Your task to perform on an android device: Open Maps and search for coffee Image 0: 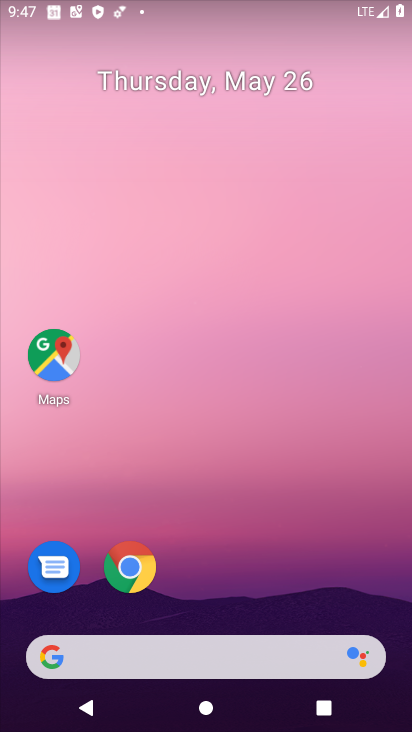
Step 0: drag from (161, 706) to (107, 0)
Your task to perform on an android device: Open Maps and search for coffee Image 1: 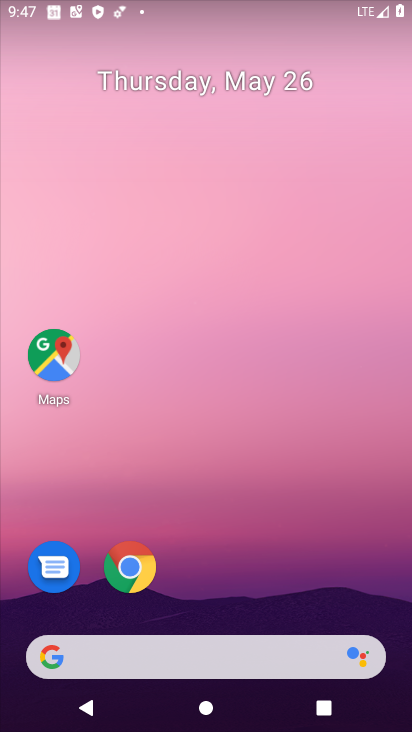
Step 1: drag from (155, 717) to (273, 10)
Your task to perform on an android device: Open Maps and search for coffee Image 2: 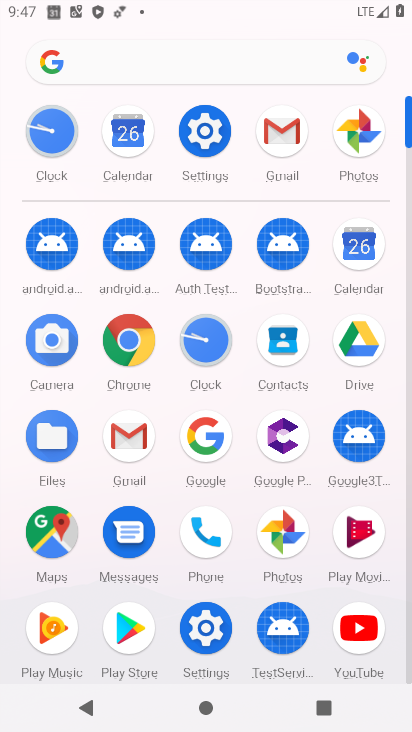
Step 2: click (17, 527)
Your task to perform on an android device: Open Maps and search for coffee Image 3: 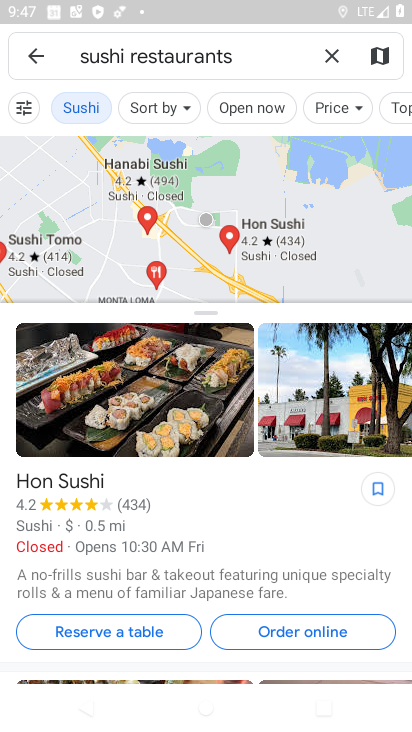
Step 3: click (325, 46)
Your task to perform on an android device: Open Maps and search for coffee Image 4: 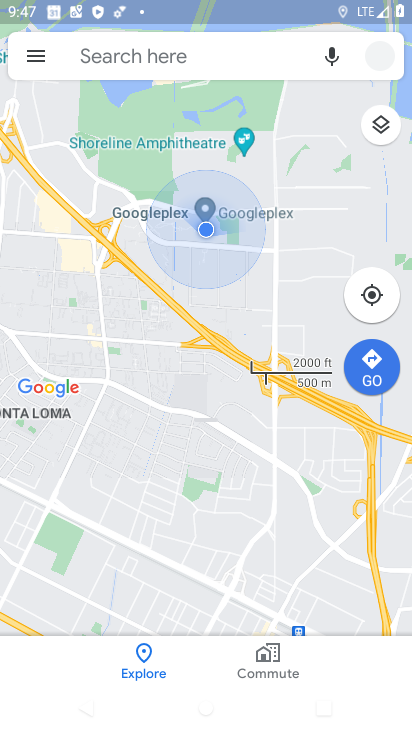
Step 4: click (219, 57)
Your task to perform on an android device: Open Maps and search for coffee Image 5: 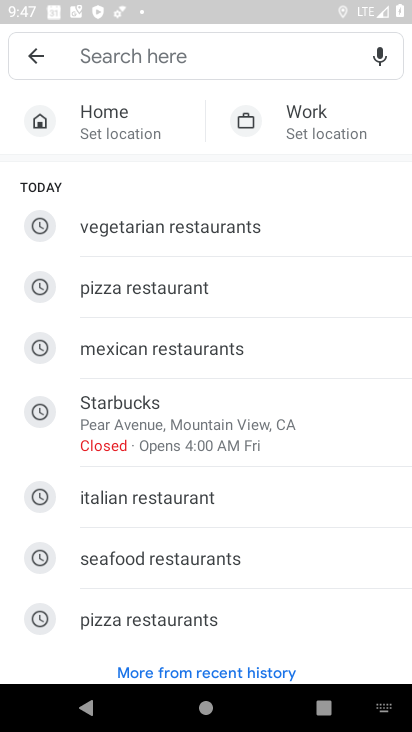
Step 5: type "coffee"
Your task to perform on an android device: Open Maps and search for coffee Image 6: 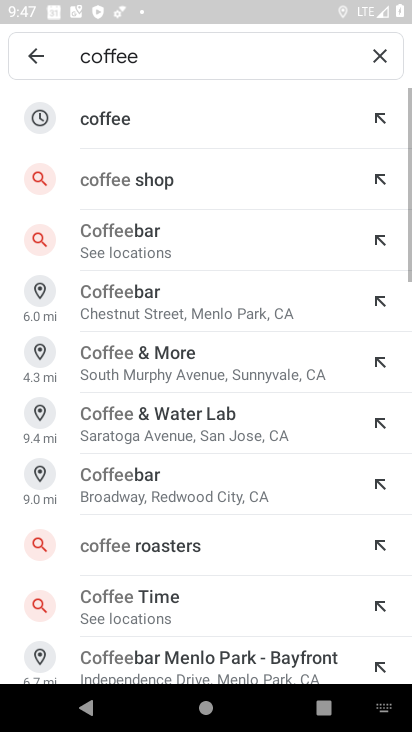
Step 6: click (243, 112)
Your task to perform on an android device: Open Maps and search for coffee Image 7: 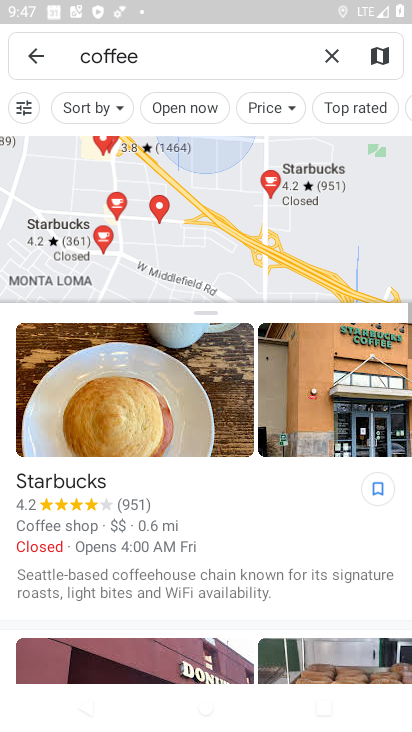
Step 7: task complete